Your task to perform on an android device: Open Google Image 0: 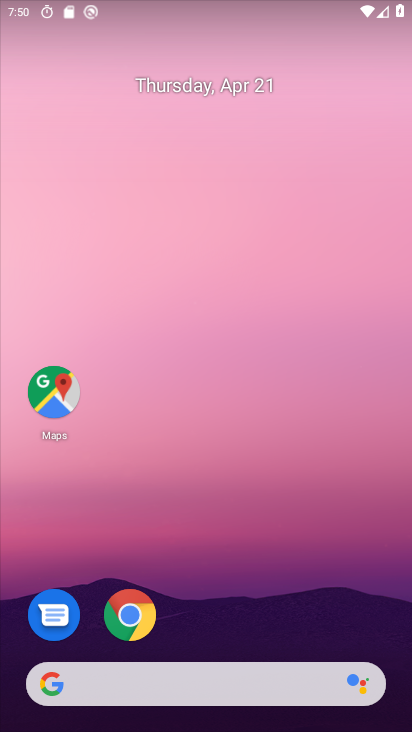
Step 0: drag from (131, 679) to (250, 224)
Your task to perform on an android device: Open Google Image 1: 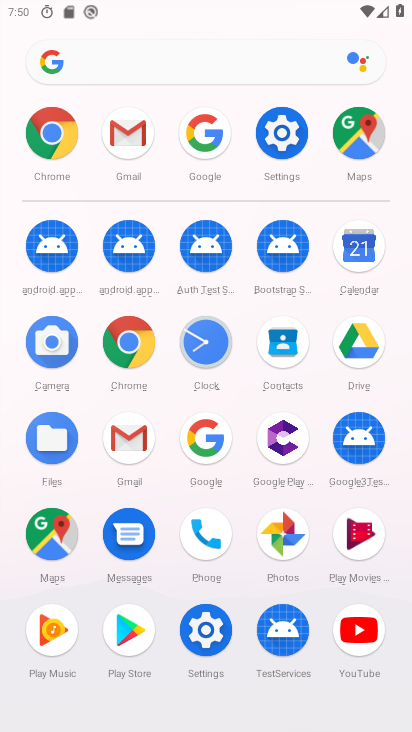
Step 1: click (212, 147)
Your task to perform on an android device: Open Google Image 2: 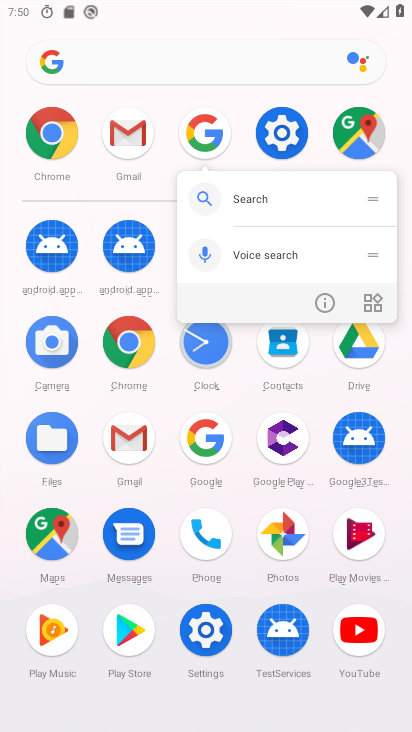
Step 2: click (205, 144)
Your task to perform on an android device: Open Google Image 3: 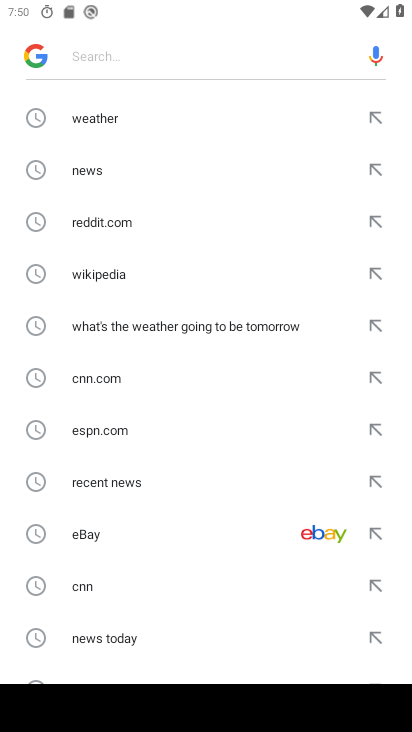
Step 3: task complete